Your task to perform on an android device: What is the recent news? Image 0: 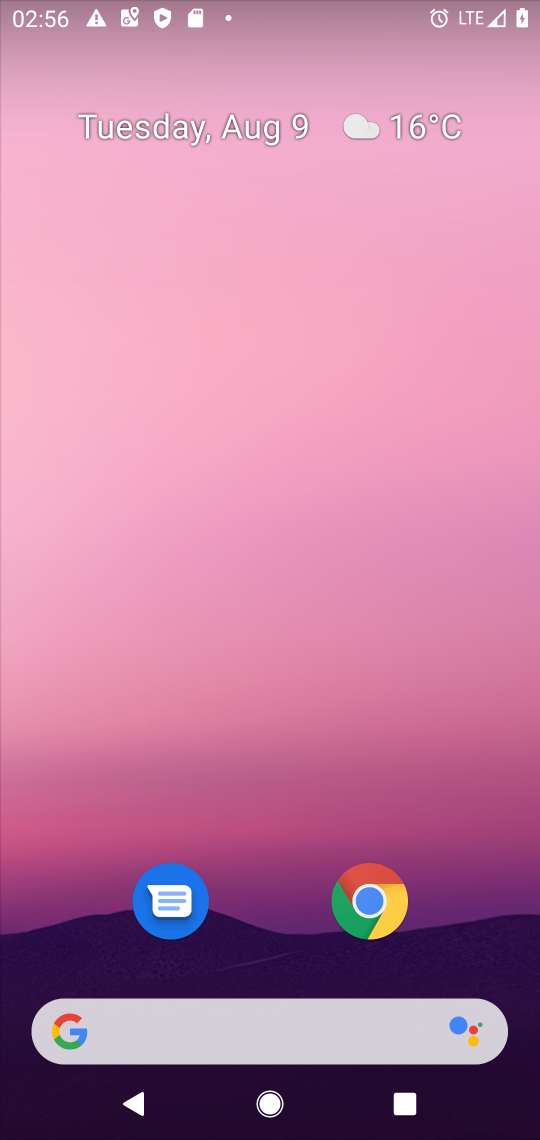
Step 0: drag from (9, 483) to (480, 502)
Your task to perform on an android device: What is the recent news? Image 1: 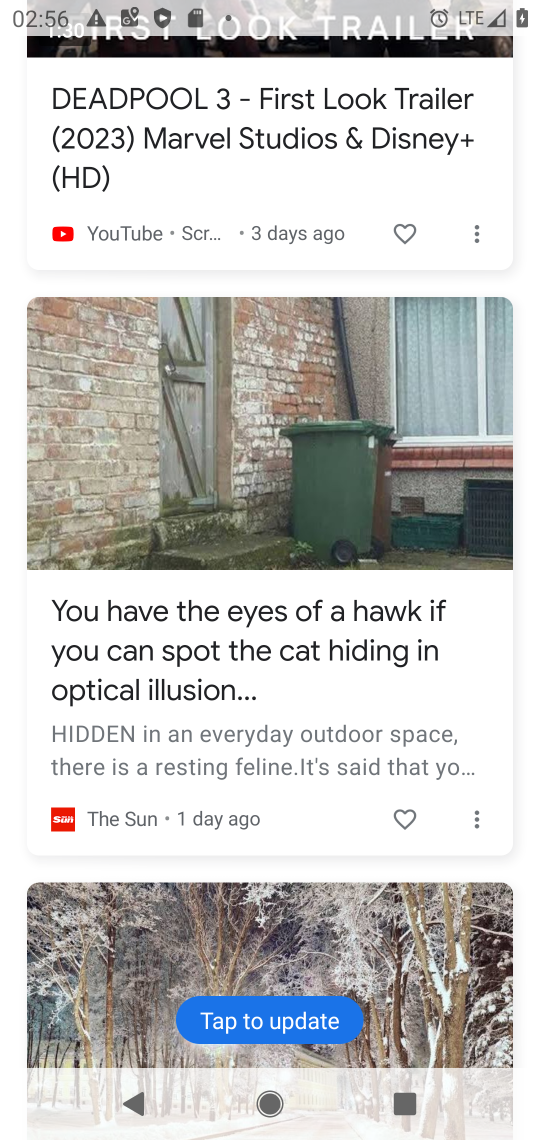
Step 1: task complete